Your task to perform on an android device: Go to Reddit.com Image 0: 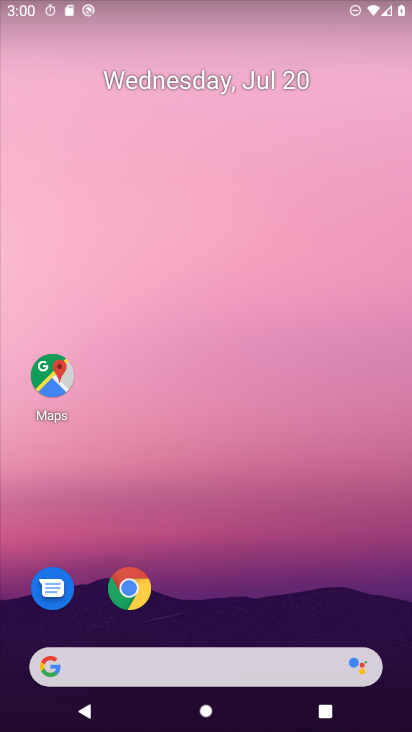
Step 0: drag from (227, 630) to (73, 70)
Your task to perform on an android device: Go to Reddit.com Image 1: 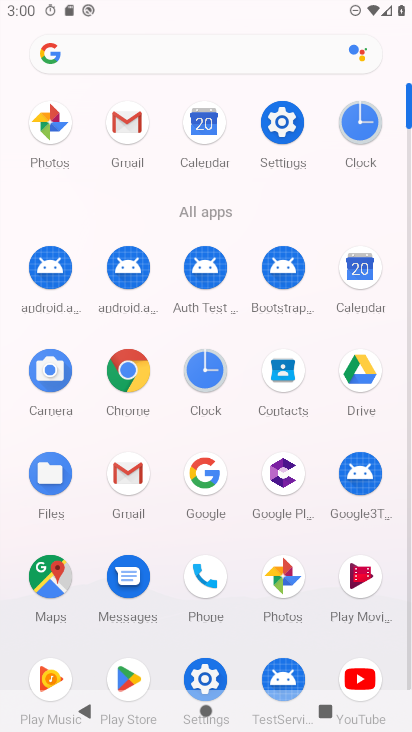
Step 1: click (131, 388)
Your task to perform on an android device: Go to Reddit.com Image 2: 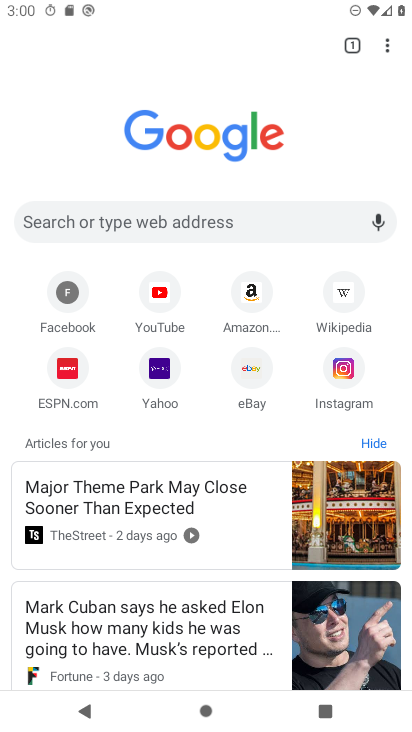
Step 2: click (130, 221)
Your task to perform on an android device: Go to Reddit.com Image 3: 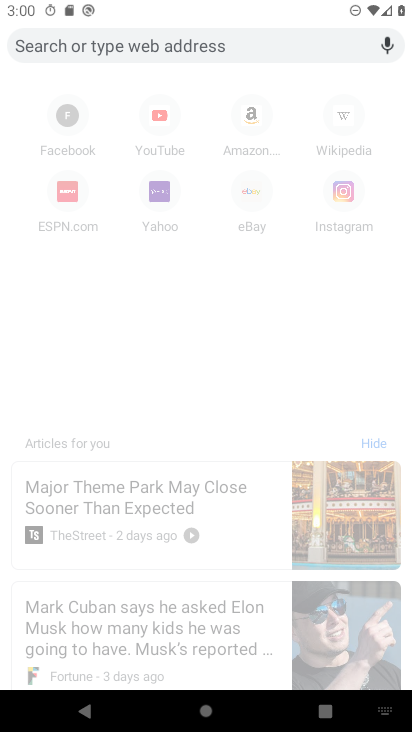
Step 3: type "reddit"
Your task to perform on an android device: Go to Reddit.com Image 4: 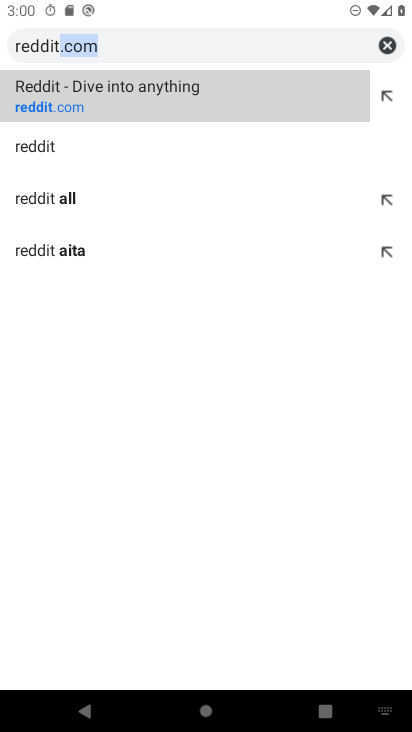
Step 4: click (90, 108)
Your task to perform on an android device: Go to Reddit.com Image 5: 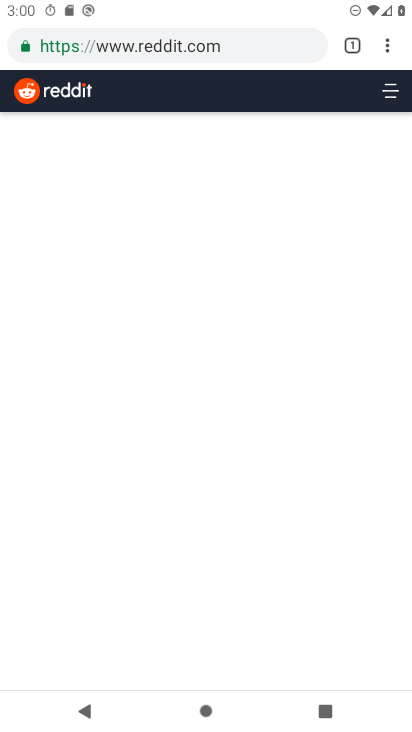
Step 5: task complete